Your task to perform on an android device: Search for "usb-c to usb-a" on target.com, select the first entry, add it to the cart, then select checkout. Image 0: 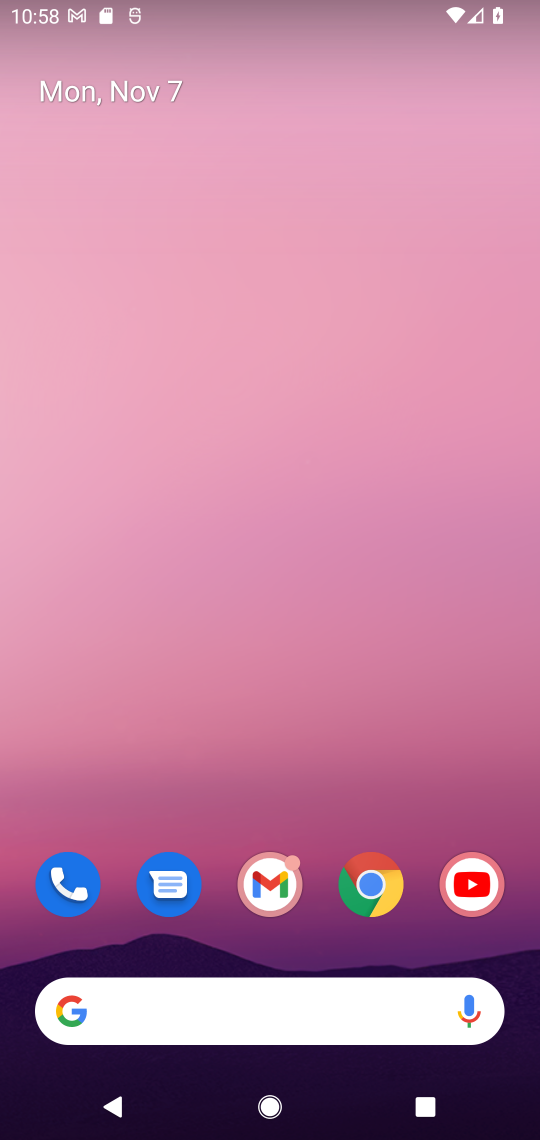
Step 0: click (378, 885)
Your task to perform on an android device: Search for "usb-c to usb-a" on target.com, select the first entry, add it to the cart, then select checkout. Image 1: 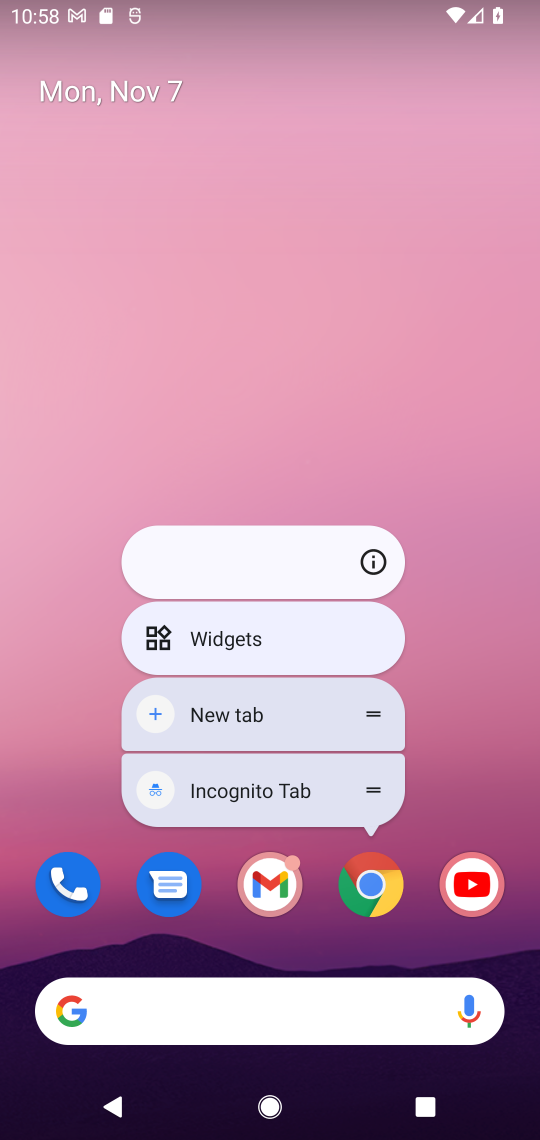
Step 1: click (378, 883)
Your task to perform on an android device: Search for "usb-c to usb-a" on target.com, select the first entry, add it to the cart, then select checkout. Image 2: 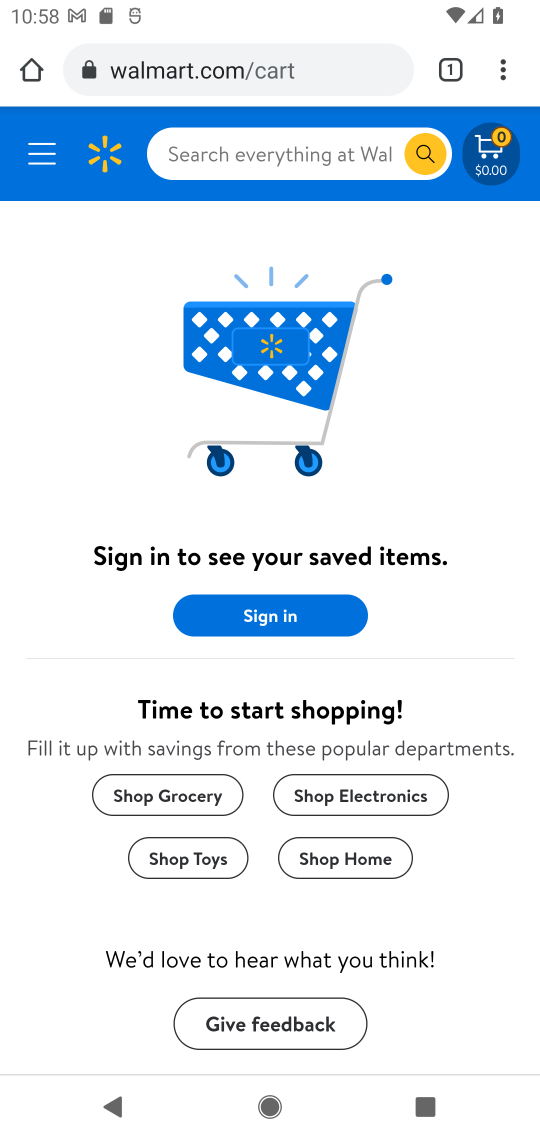
Step 2: click (281, 55)
Your task to perform on an android device: Search for "usb-c to usb-a" on target.com, select the first entry, add it to the cart, then select checkout. Image 3: 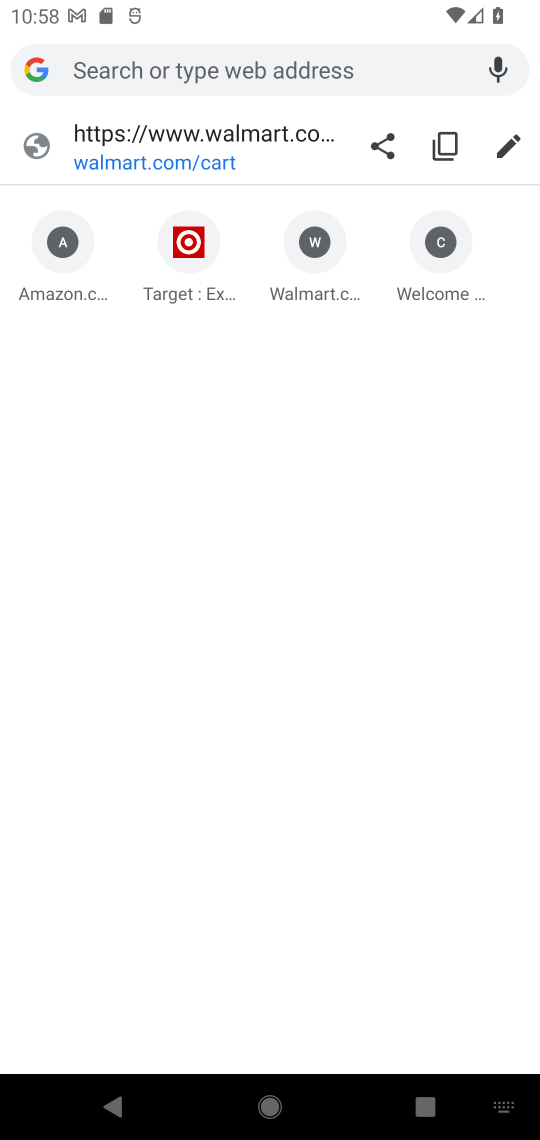
Step 3: type "target.com"
Your task to perform on an android device: Search for "usb-c to usb-a" on target.com, select the first entry, add it to the cart, then select checkout. Image 4: 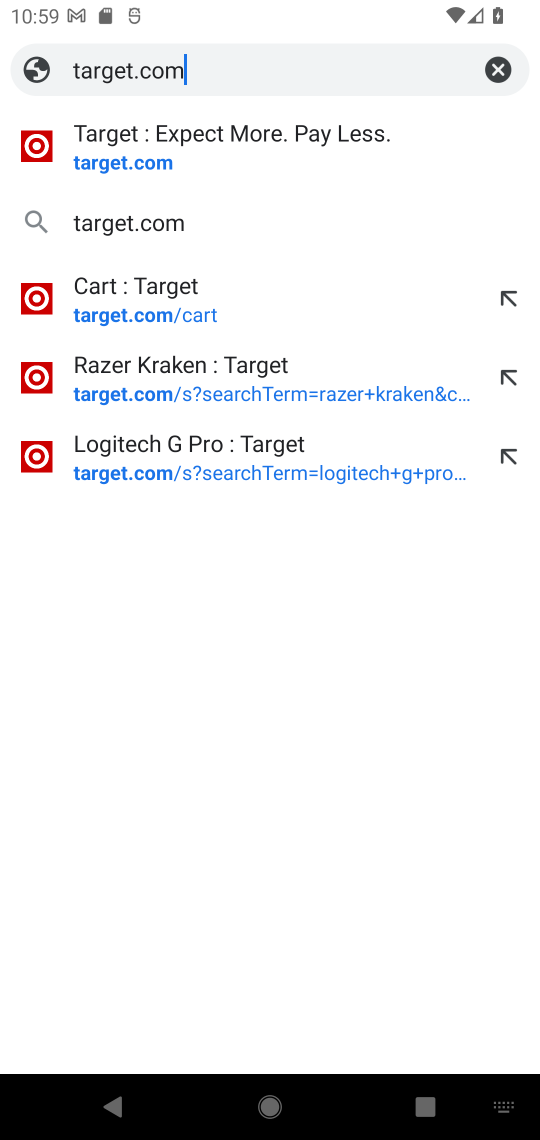
Step 4: click (163, 219)
Your task to perform on an android device: Search for "usb-c to usb-a" on target.com, select the first entry, add it to the cart, then select checkout. Image 5: 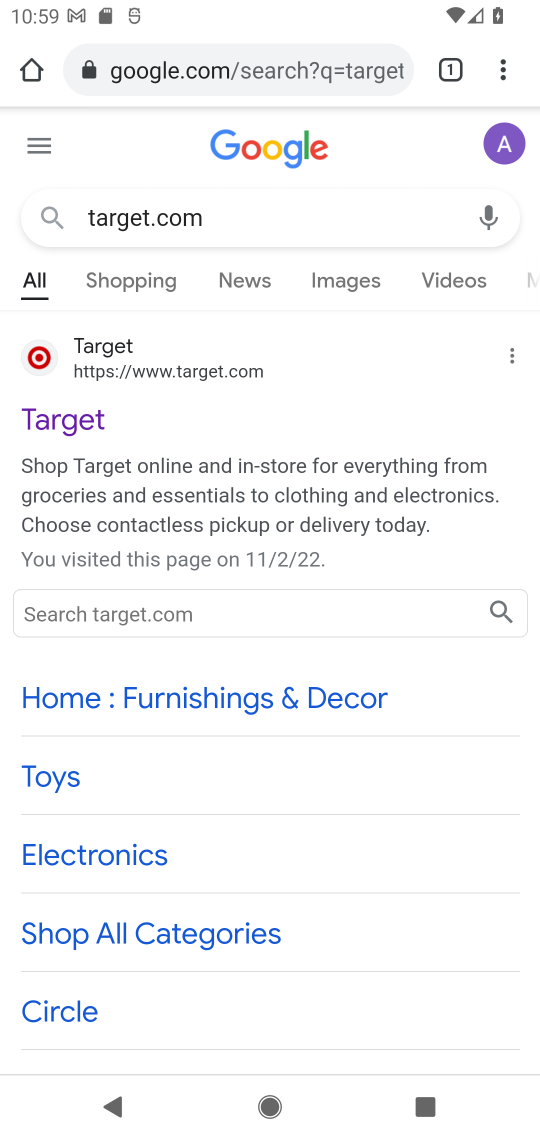
Step 5: click (112, 367)
Your task to perform on an android device: Search for "usb-c to usb-a" on target.com, select the first entry, add it to the cart, then select checkout. Image 6: 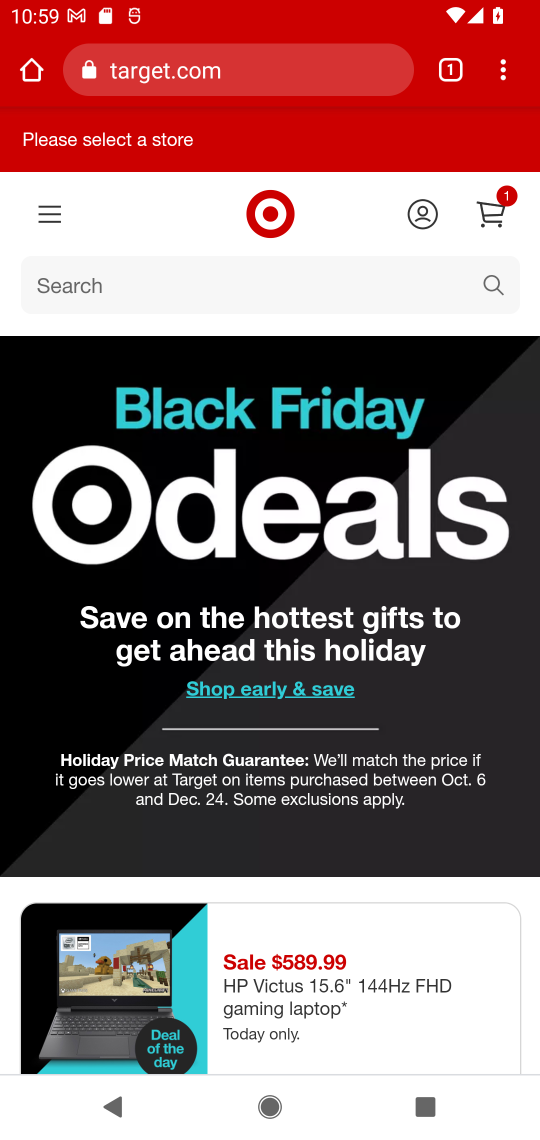
Step 6: click (485, 270)
Your task to perform on an android device: Search for "usb-c to usb-a" on target.com, select the first entry, add it to the cart, then select checkout. Image 7: 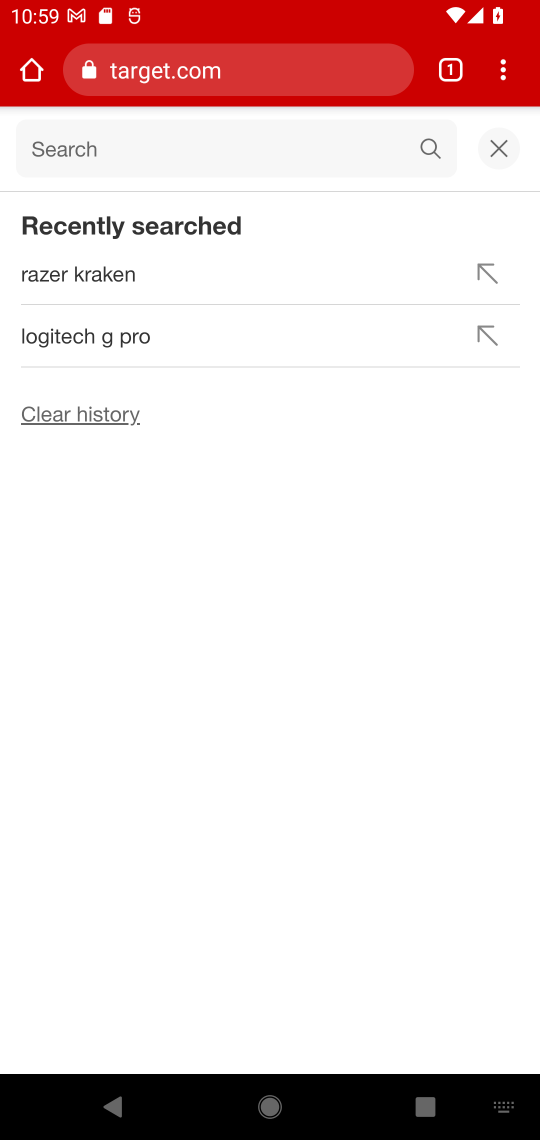
Step 7: type "usb-c to usb-a"
Your task to perform on an android device: Search for "usb-c to usb-a" on target.com, select the first entry, add it to the cart, then select checkout. Image 8: 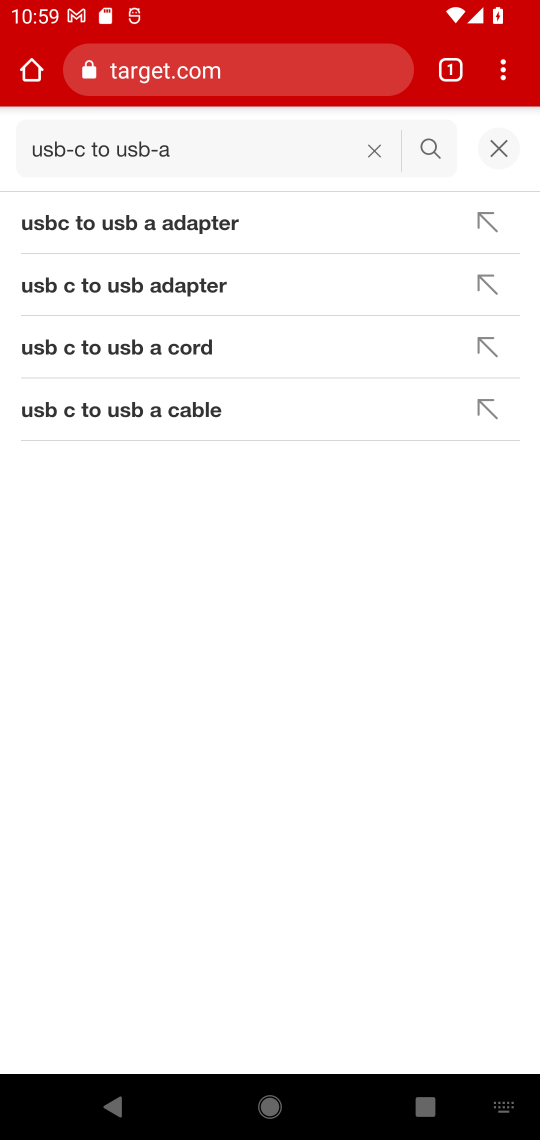
Step 8: click (167, 405)
Your task to perform on an android device: Search for "usb-c to usb-a" on target.com, select the first entry, add it to the cart, then select checkout. Image 9: 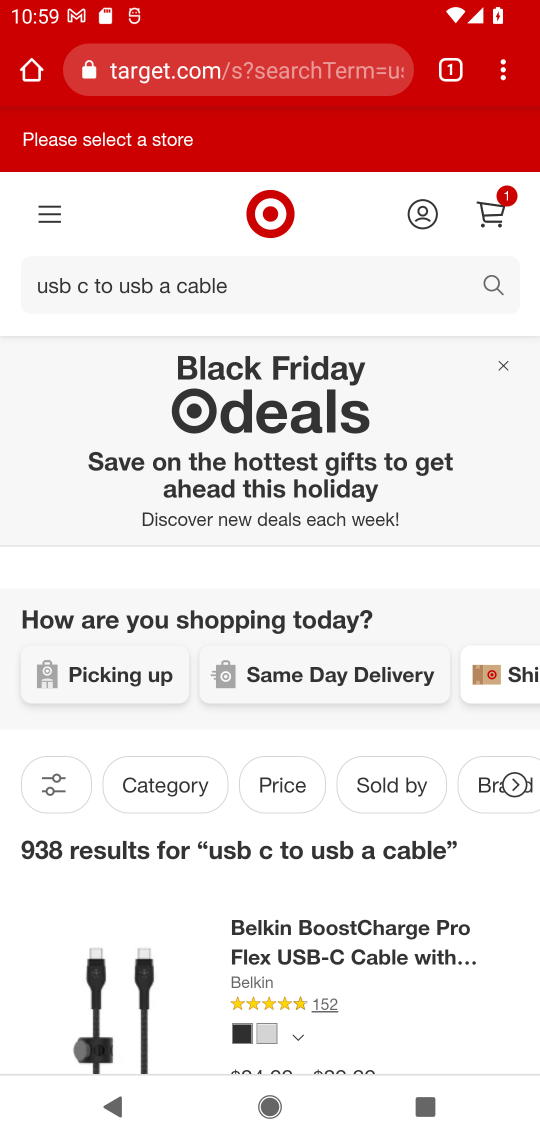
Step 9: drag from (402, 836) to (430, 412)
Your task to perform on an android device: Search for "usb-c to usb-a" on target.com, select the first entry, add it to the cart, then select checkout. Image 10: 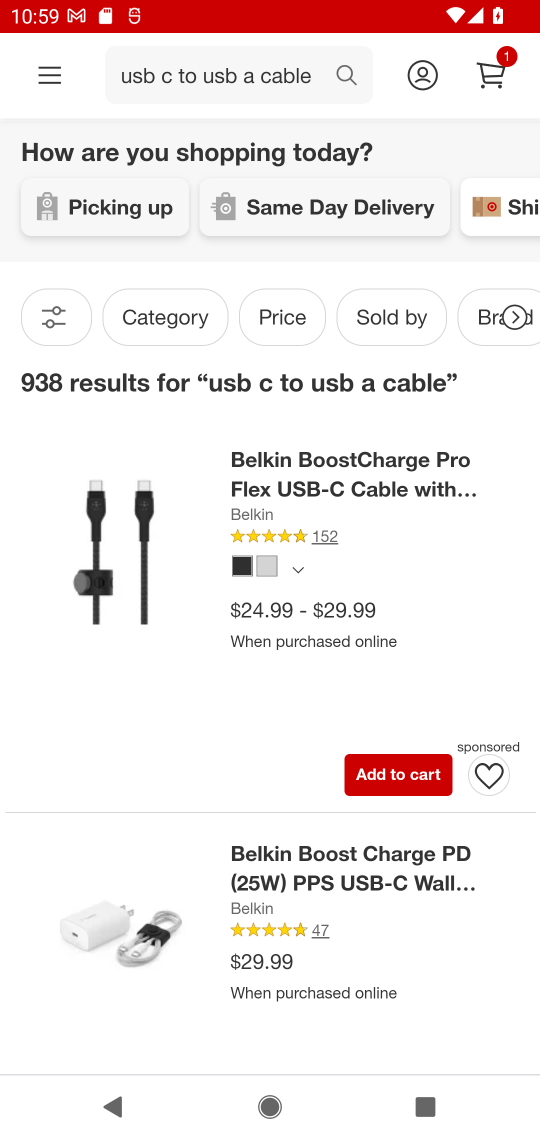
Step 10: click (120, 627)
Your task to perform on an android device: Search for "usb-c to usb-a" on target.com, select the first entry, add it to the cart, then select checkout. Image 11: 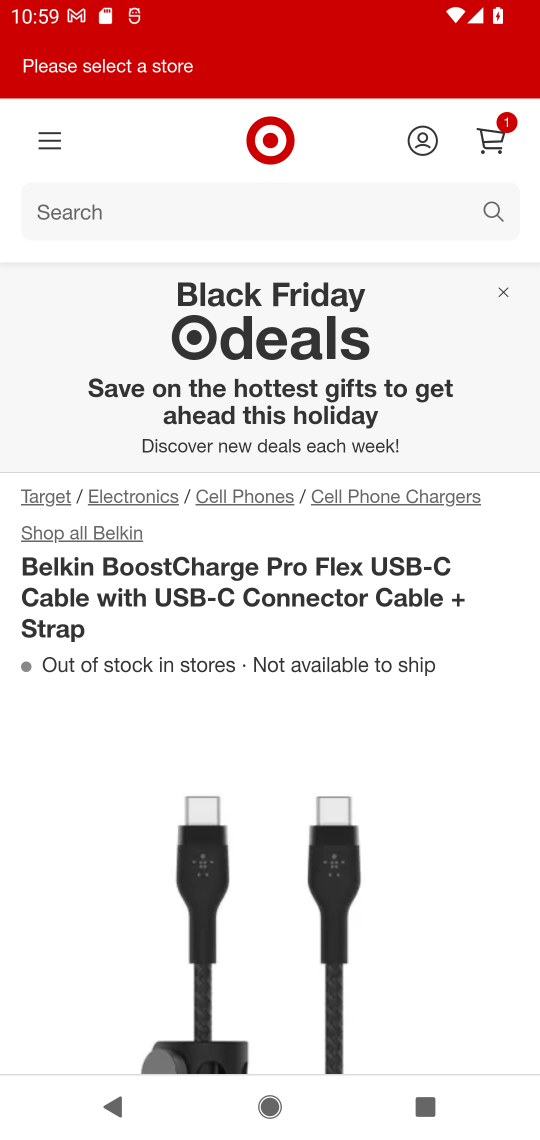
Step 11: task complete